Your task to perform on an android device: Open Youtube and go to "Your channel" Image 0: 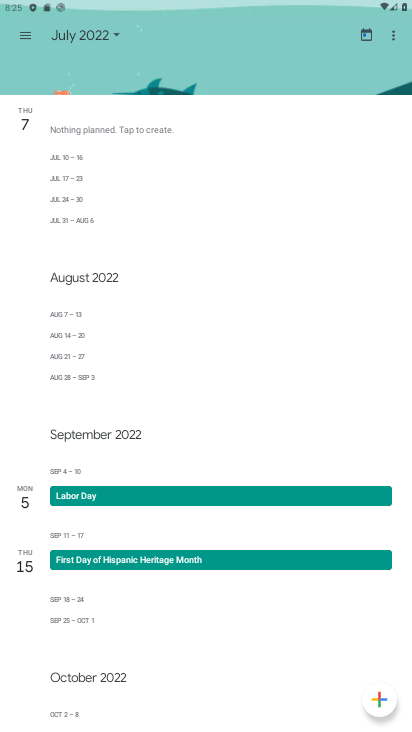
Step 0: press home button
Your task to perform on an android device: Open Youtube and go to "Your channel" Image 1: 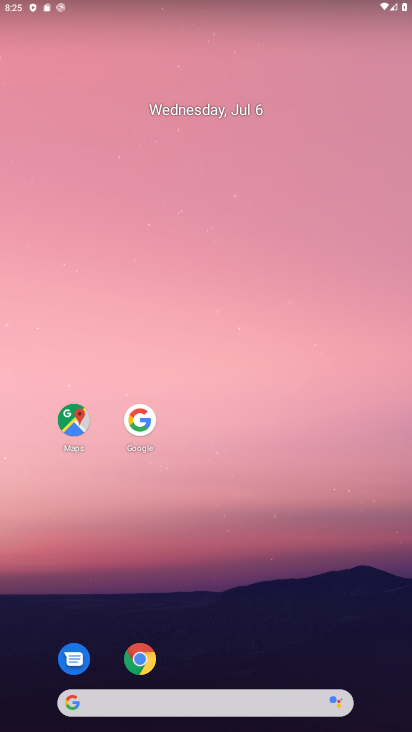
Step 1: drag from (248, 628) to (232, 95)
Your task to perform on an android device: Open Youtube and go to "Your channel" Image 2: 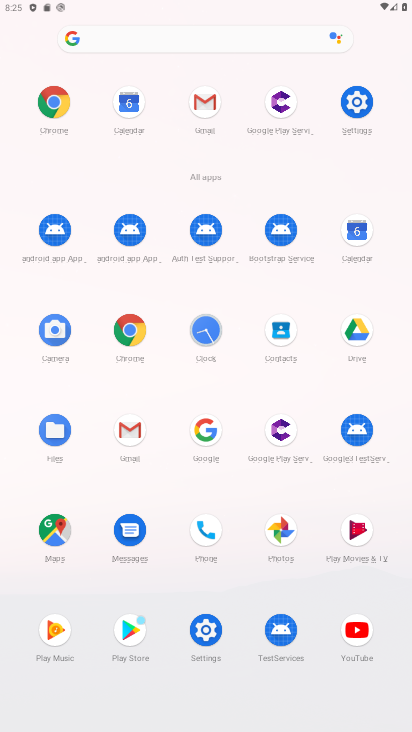
Step 2: click (358, 636)
Your task to perform on an android device: Open Youtube and go to "Your channel" Image 3: 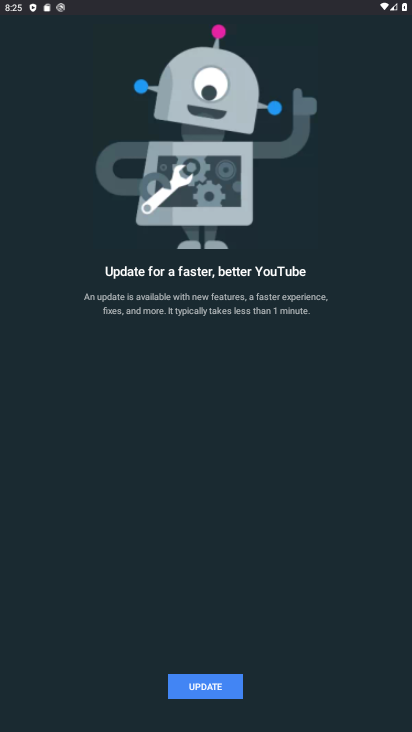
Step 3: click (207, 684)
Your task to perform on an android device: Open Youtube and go to "Your channel" Image 4: 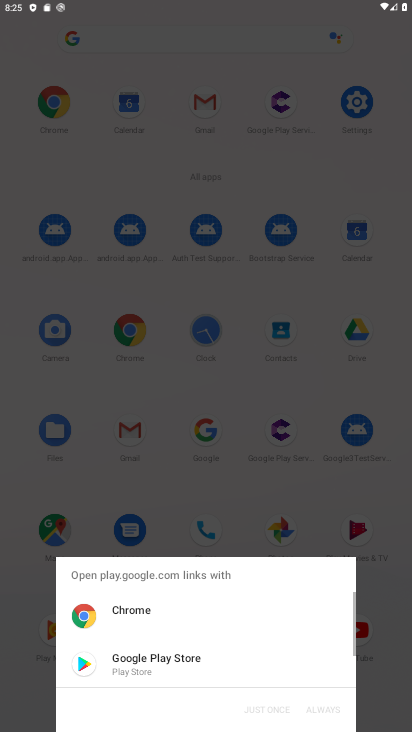
Step 4: click (140, 663)
Your task to perform on an android device: Open Youtube and go to "Your channel" Image 5: 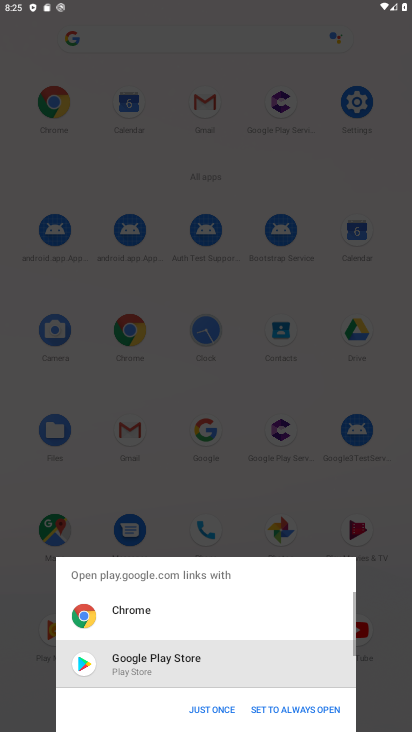
Step 5: click (199, 706)
Your task to perform on an android device: Open Youtube and go to "Your channel" Image 6: 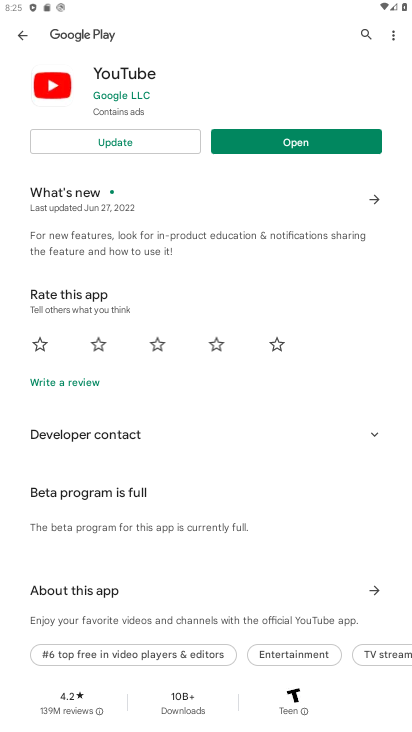
Step 6: click (154, 134)
Your task to perform on an android device: Open Youtube and go to "Your channel" Image 7: 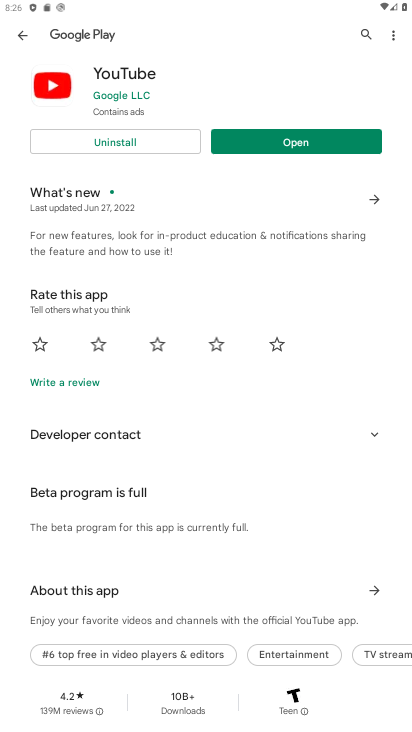
Step 7: click (308, 139)
Your task to perform on an android device: Open Youtube and go to "Your channel" Image 8: 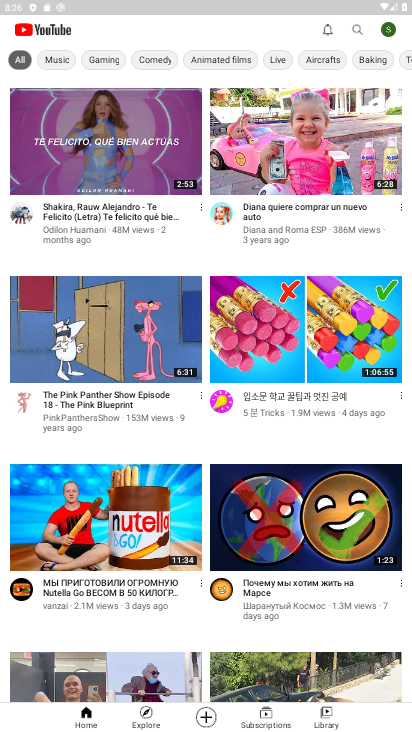
Step 8: click (392, 28)
Your task to perform on an android device: Open Youtube and go to "Your channel" Image 9: 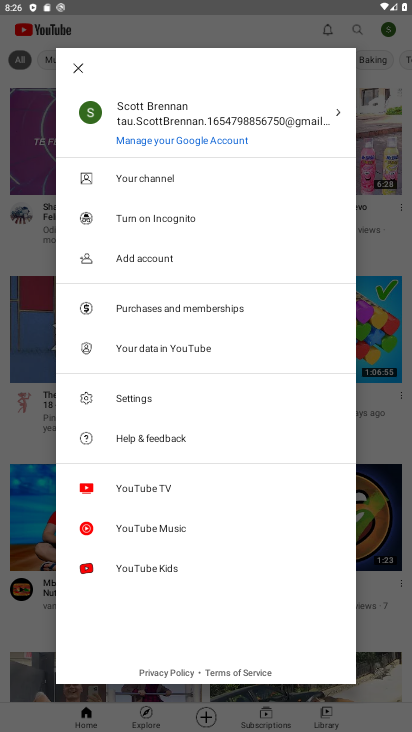
Step 9: click (165, 188)
Your task to perform on an android device: Open Youtube and go to "Your channel" Image 10: 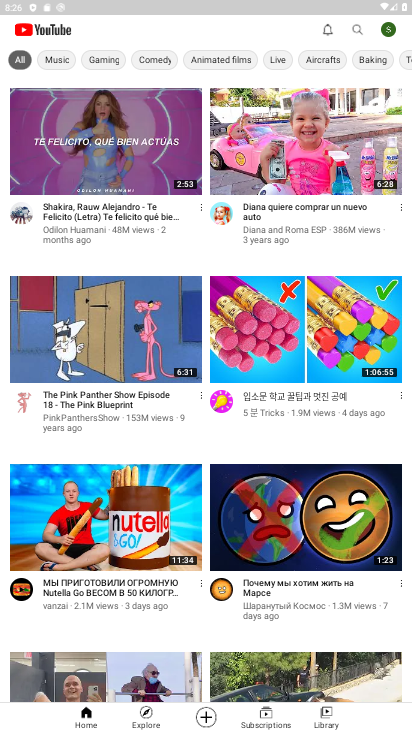
Step 10: task complete